Your task to perform on an android device: Open Chrome and go to settings Image 0: 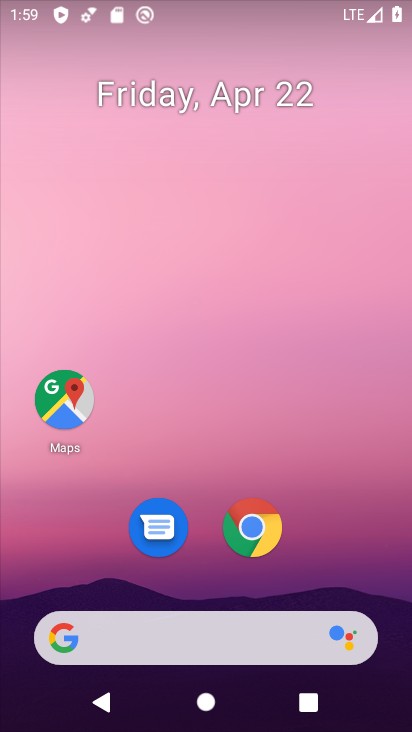
Step 0: click (259, 523)
Your task to perform on an android device: Open Chrome and go to settings Image 1: 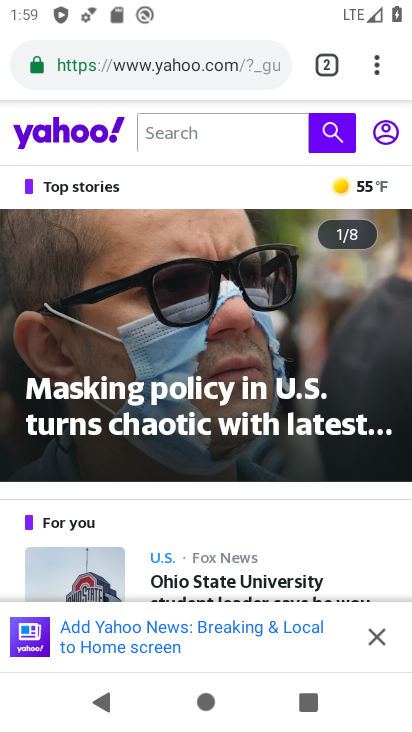
Step 1: task complete